Your task to perform on an android device: delete the emails in spam in the gmail app Image 0: 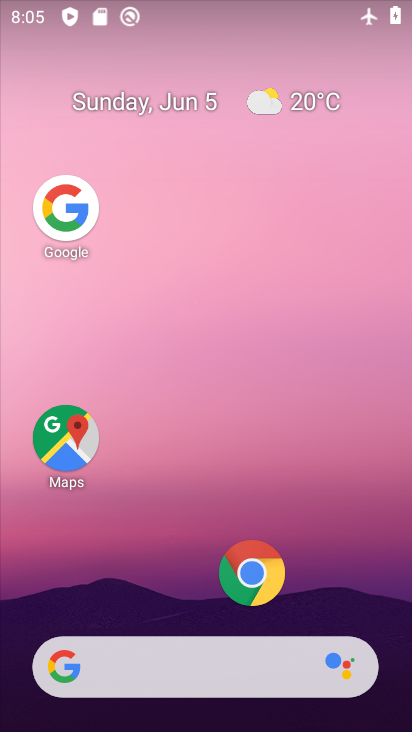
Step 0: drag from (208, 620) to (161, 2)
Your task to perform on an android device: delete the emails in spam in the gmail app Image 1: 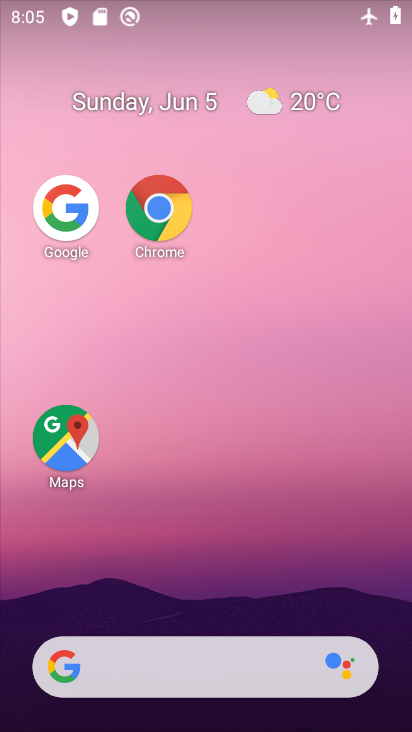
Step 1: click (213, 568)
Your task to perform on an android device: delete the emails in spam in the gmail app Image 2: 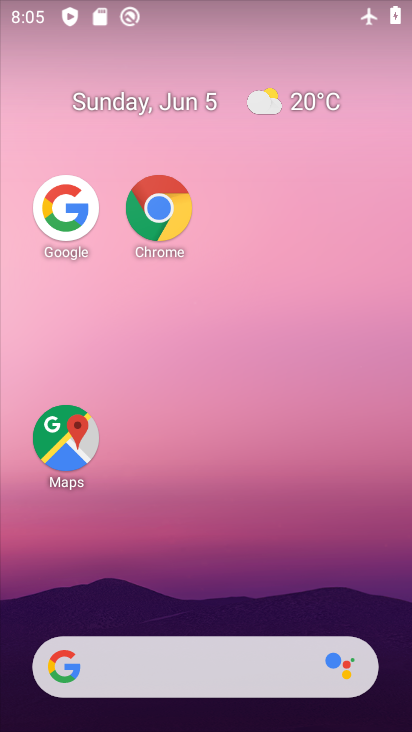
Step 2: drag from (214, 612) to (175, 38)
Your task to perform on an android device: delete the emails in spam in the gmail app Image 3: 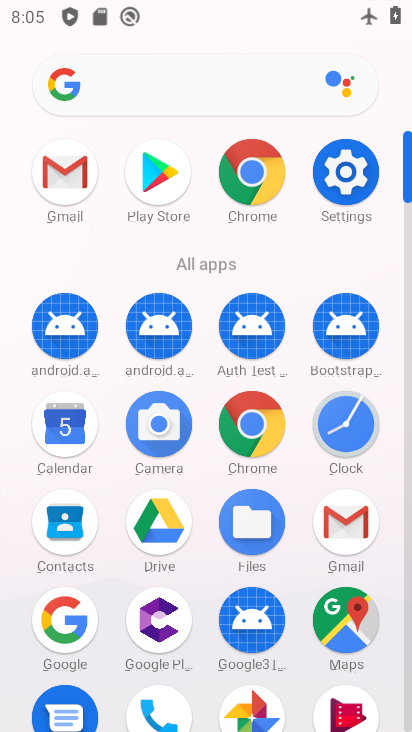
Step 3: click (351, 523)
Your task to perform on an android device: delete the emails in spam in the gmail app Image 4: 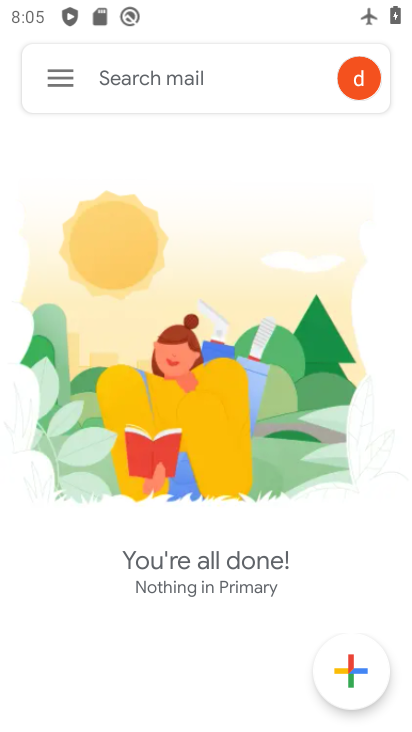
Step 4: task complete